Your task to perform on an android device: Open the web browser Image 0: 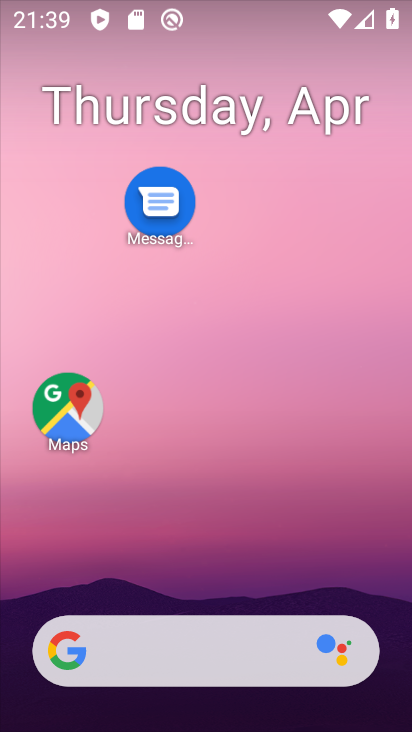
Step 0: drag from (197, 594) to (232, 129)
Your task to perform on an android device: Open the web browser Image 1: 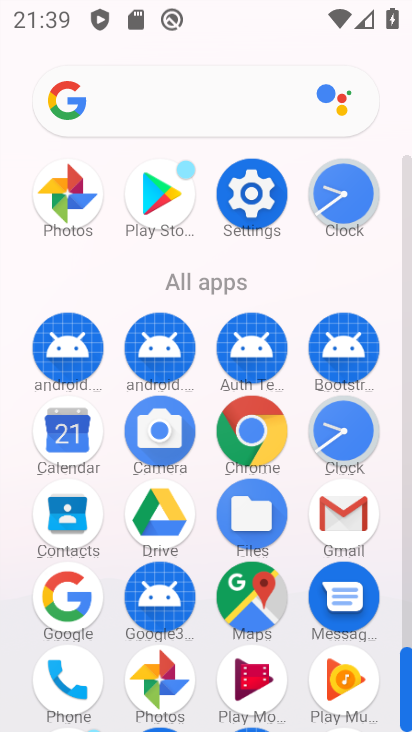
Step 1: click (246, 432)
Your task to perform on an android device: Open the web browser Image 2: 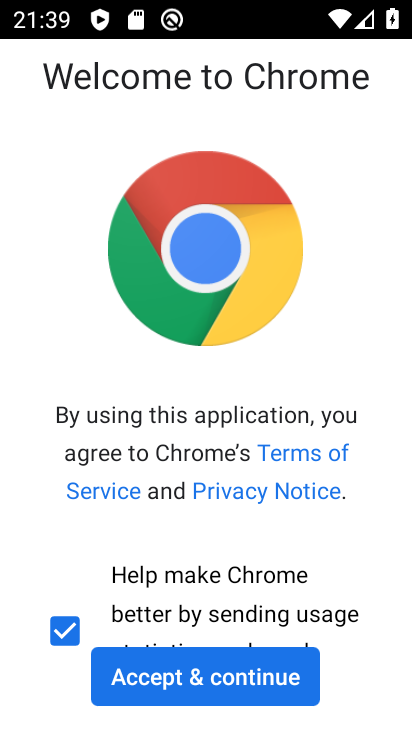
Step 2: click (235, 662)
Your task to perform on an android device: Open the web browser Image 3: 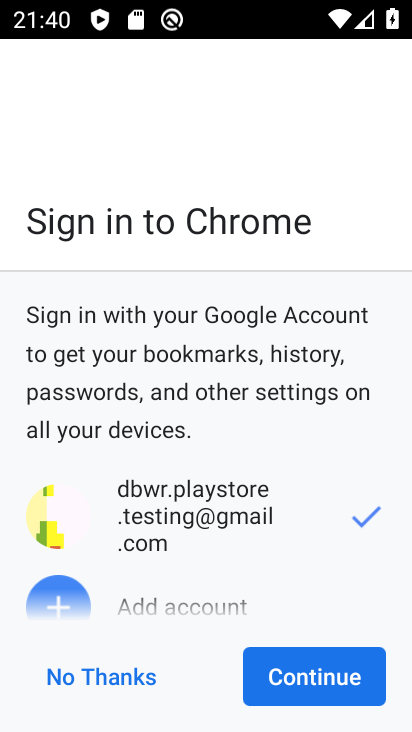
Step 3: click (303, 690)
Your task to perform on an android device: Open the web browser Image 4: 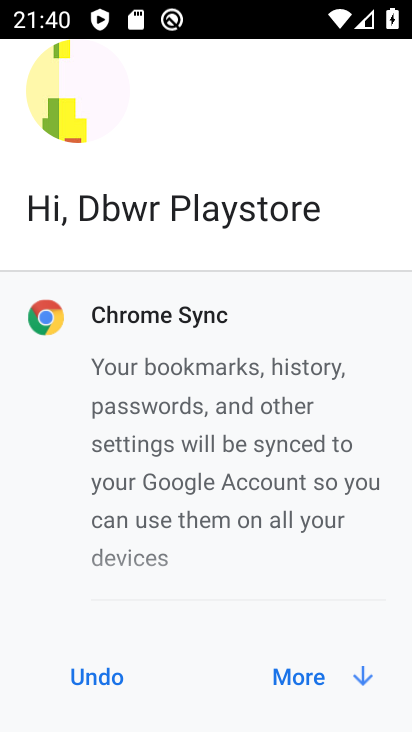
Step 4: click (294, 674)
Your task to perform on an android device: Open the web browser Image 5: 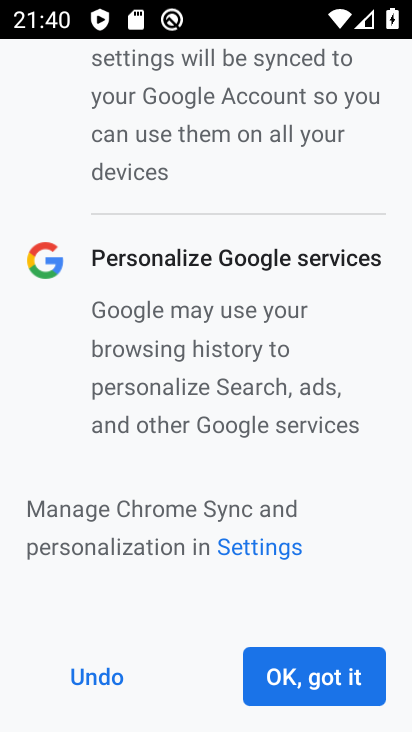
Step 5: click (294, 674)
Your task to perform on an android device: Open the web browser Image 6: 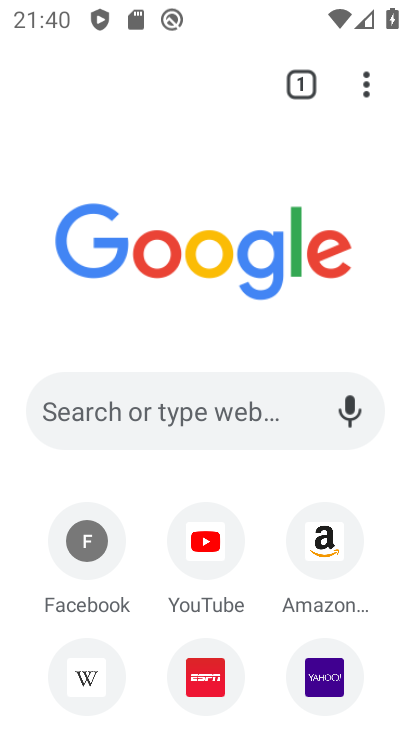
Step 6: task complete